Your task to perform on an android device: check the backup settings in the google photos Image 0: 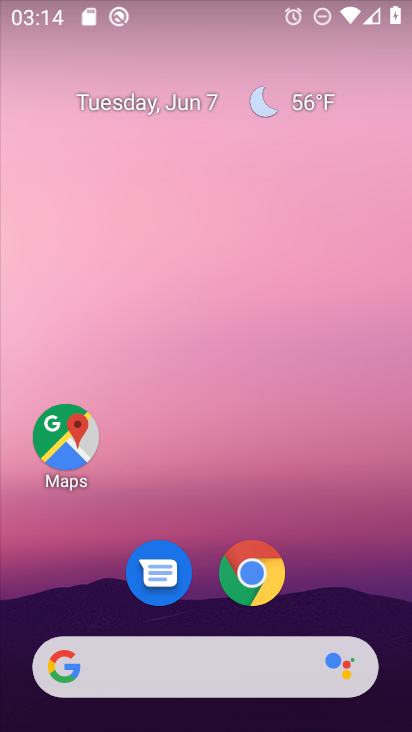
Step 0: drag from (314, 615) to (313, 2)
Your task to perform on an android device: check the backup settings in the google photos Image 1: 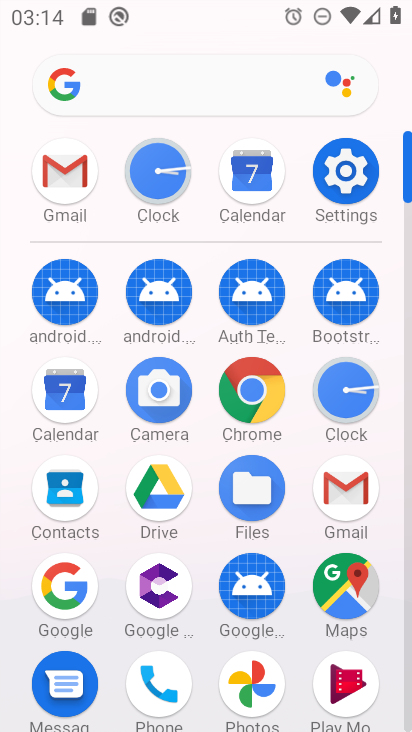
Step 1: click (233, 668)
Your task to perform on an android device: check the backup settings in the google photos Image 2: 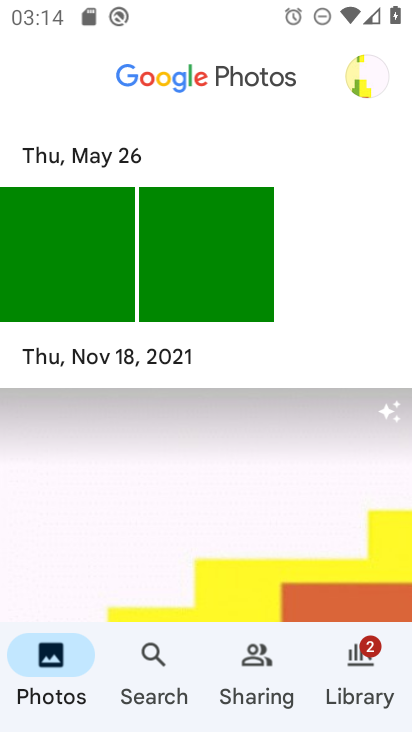
Step 2: click (365, 71)
Your task to perform on an android device: check the backup settings in the google photos Image 3: 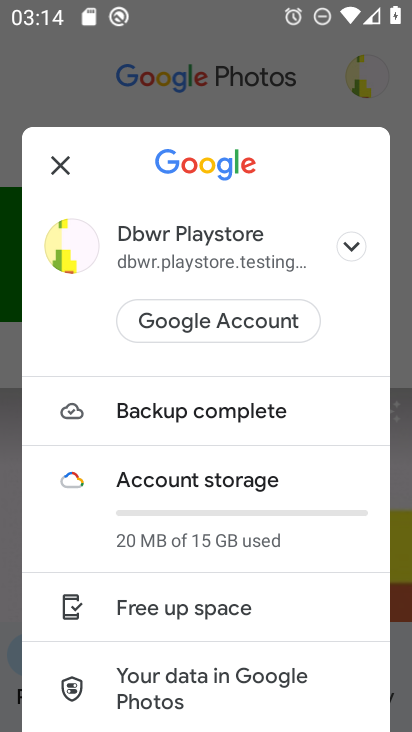
Step 3: drag from (245, 618) to (193, 148)
Your task to perform on an android device: check the backup settings in the google photos Image 4: 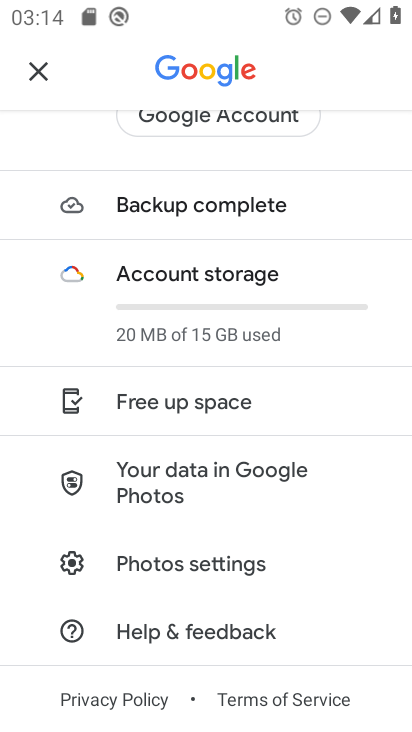
Step 4: click (191, 576)
Your task to perform on an android device: check the backup settings in the google photos Image 5: 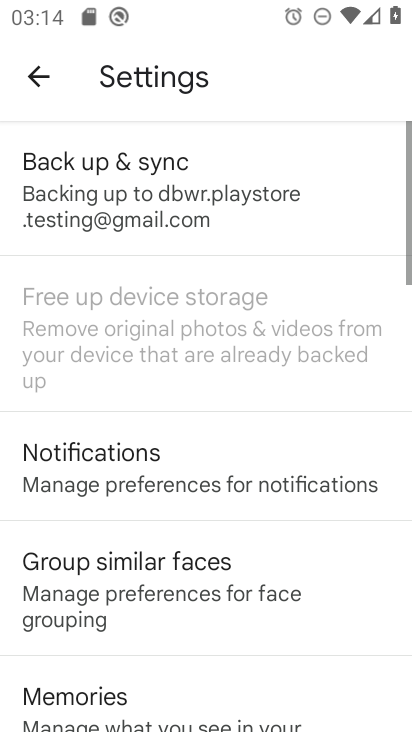
Step 5: click (239, 215)
Your task to perform on an android device: check the backup settings in the google photos Image 6: 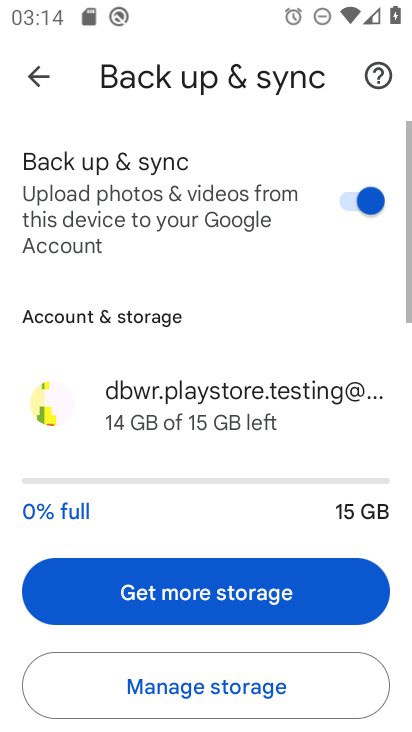
Step 6: task complete